Your task to perform on an android device: Go to network settings Image 0: 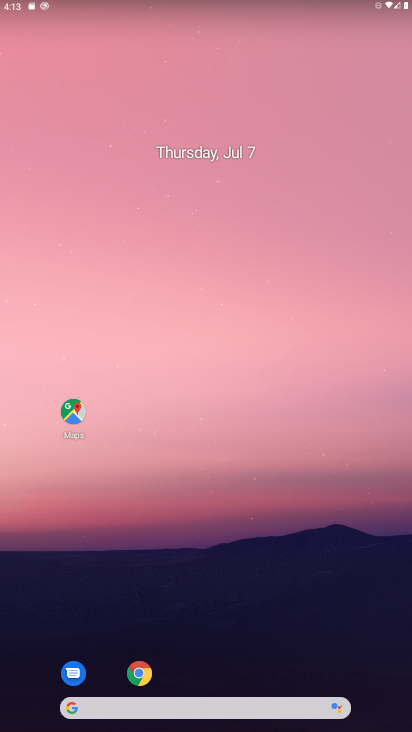
Step 0: drag from (223, 681) to (237, 8)
Your task to perform on an android device: Go to network settings Image 1: 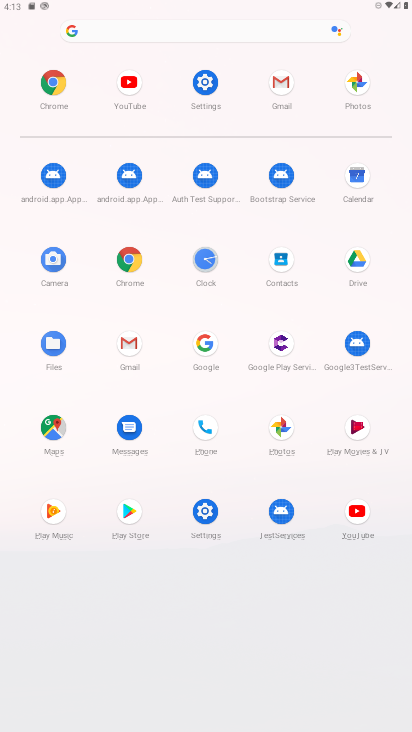
Step 1: click (204, 78)
Your task to perform on an android device: Go to network settings Image 2: 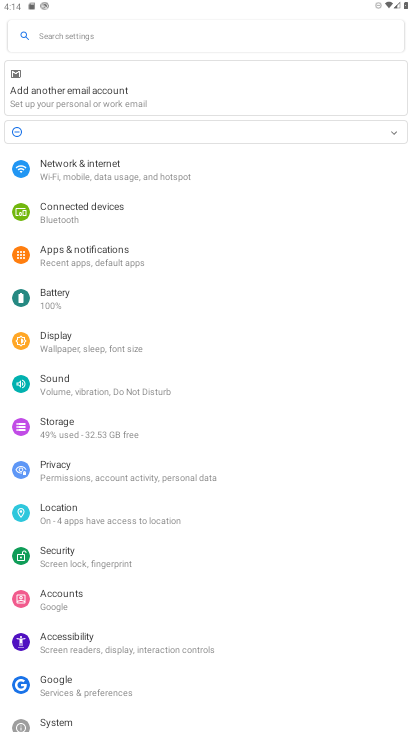
Step 2: click (129, 161)
Your task to perform on an android device: Go to network settings Image 3: 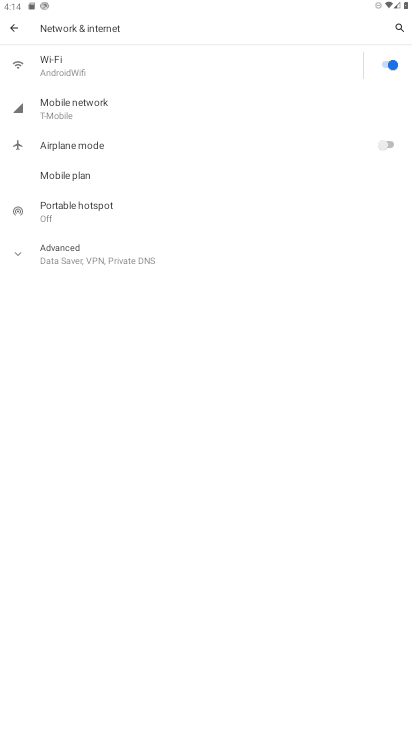
Step 3: click (17, 247)
Your task to perform on an android device: Go to network settings Image 4: 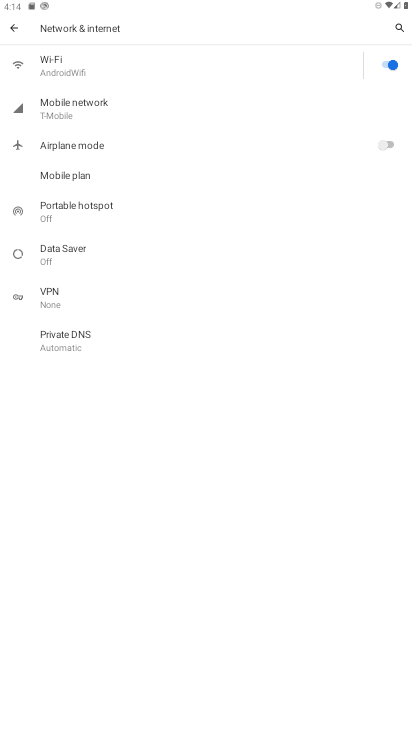
Step 4: task complete